Your task to perform on an android device: Open Chrome and go to settings Image 0: 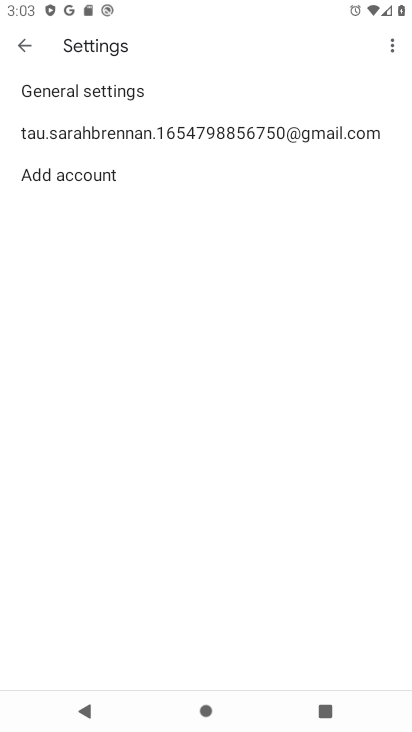
Step 0: press home button
Your task to perform on an android device: Open Chrome and go to settings Image 1: 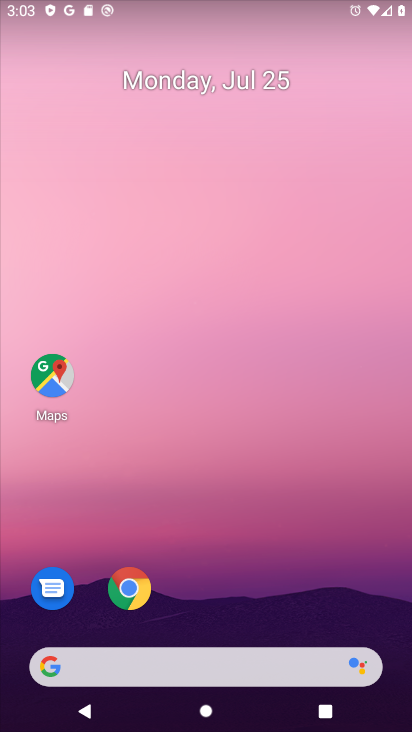
Step 1: drag from (222, 613) to (281, 0)
Your task to perform on an android device: Open Chrome and go to settings Image 2: 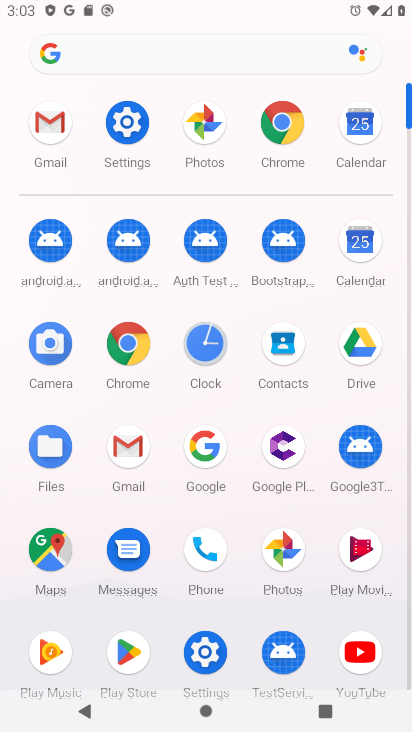
Step 2: click (125, 340)
Your task to perform on an android device: Open Chrome and go to settings Image 3: 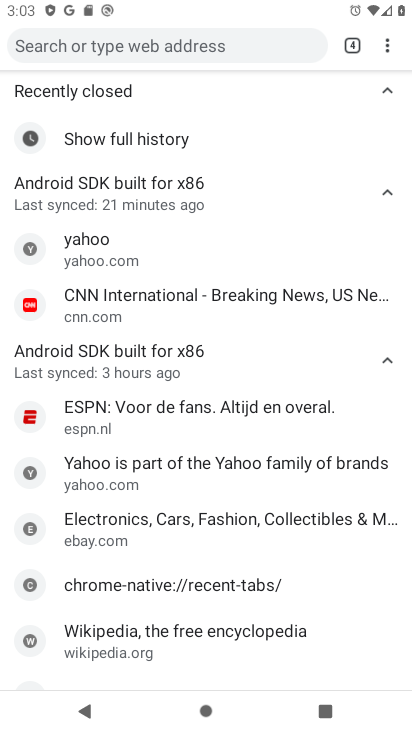
Step 3: click (385, 43)
Your task to perform on an android device: Open Chrome and go to settings Image 4: 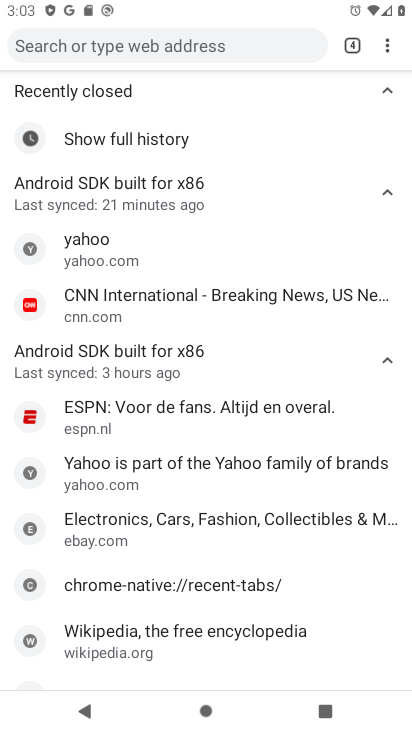
Step 4: click (386, 50)
Your task to perform on an android device: Open Chrome and go to settings Image 5: 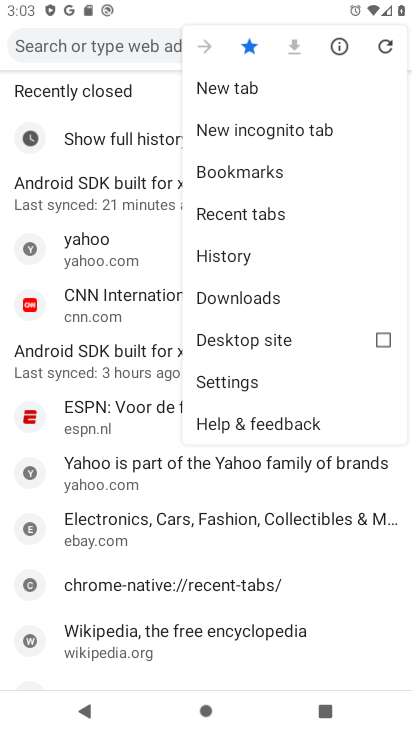
Step 5: click (271, 374)
Your task to perform on an android device: Open Chrome and go to settings Image 6: 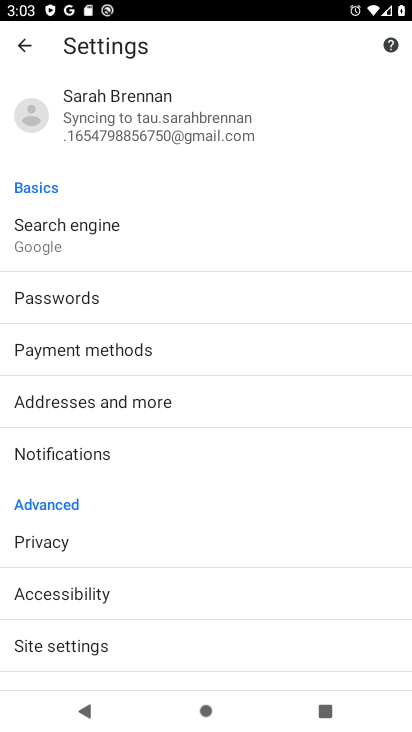
Step 6: task complete